Your task to perform on an android device: open the mobile data screen to see how much data has been used Image 0: 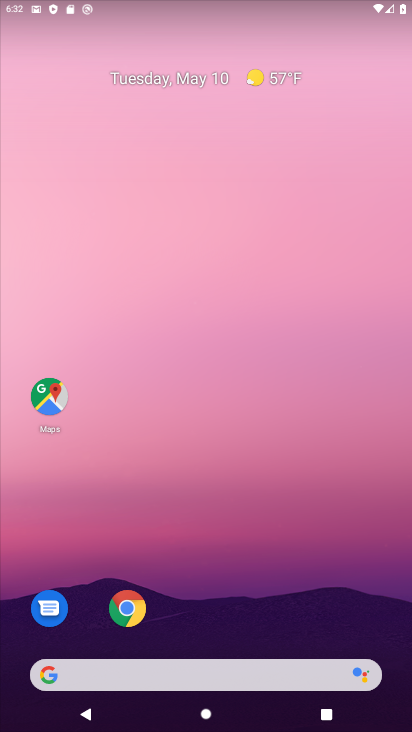
Step 0: drag from (352, 612) to (349, 124)
Your task to perform on an android device: open the mobile data screen to see how much data has been used Image 1: 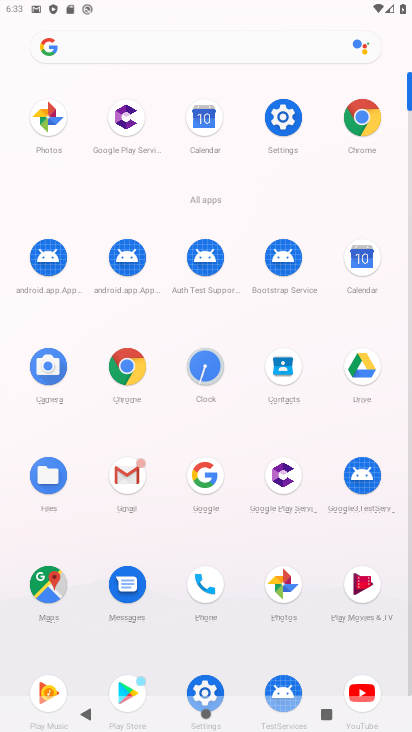
Step 1: click (208, 683)
Your task to perform on an android device: open the mobile data screen to see how much data has been used Image 2: 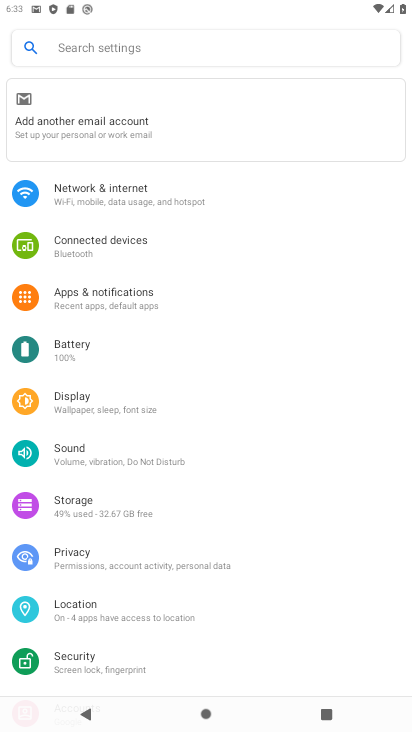
Step 2: click (167, 201)
Your task to perform on an android device: open the mobile data screen to see how much data has been used Image 3: 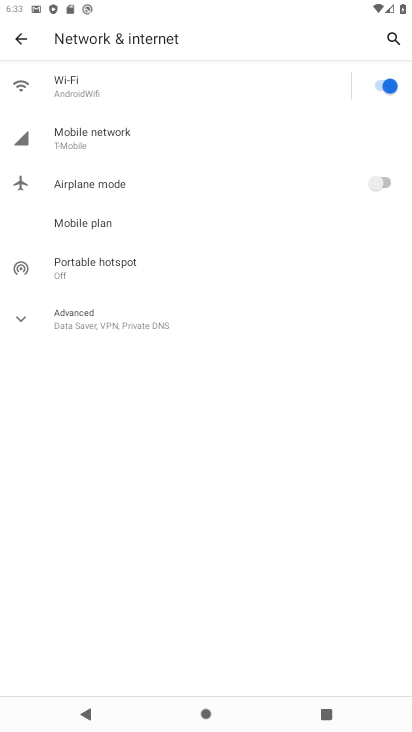
Step 3: click (145, 138)
Your task to perform on an android device: open the mobile data screen to see how much data has been used Image 4: 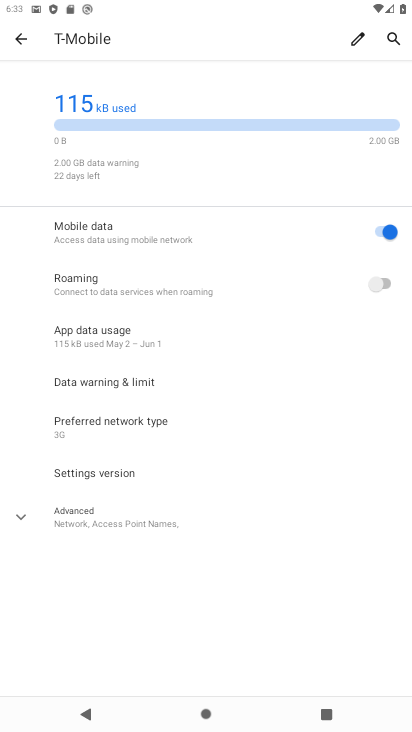
Step 4: task complete